Your task to perform on an android device: open app "DoorDash - Food Delivery" (install if not already installed), go to login, and select forgot password Image 0: 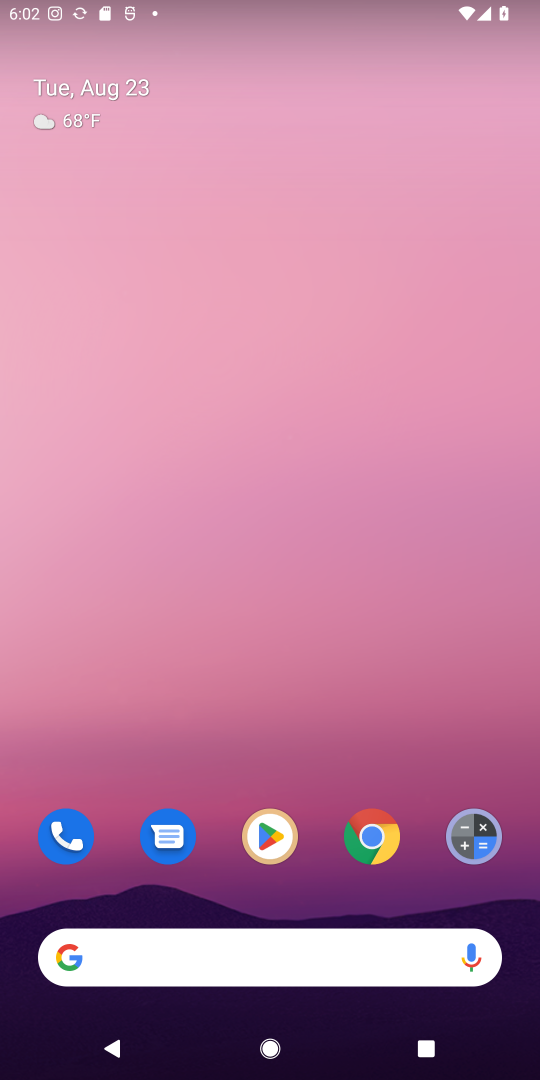
Step 0: click (273, 834)
Your task to perform on an android device: open app "DoorDash - Food Delivery" (install if not already installed), go to login, and select forgot password Image 1: 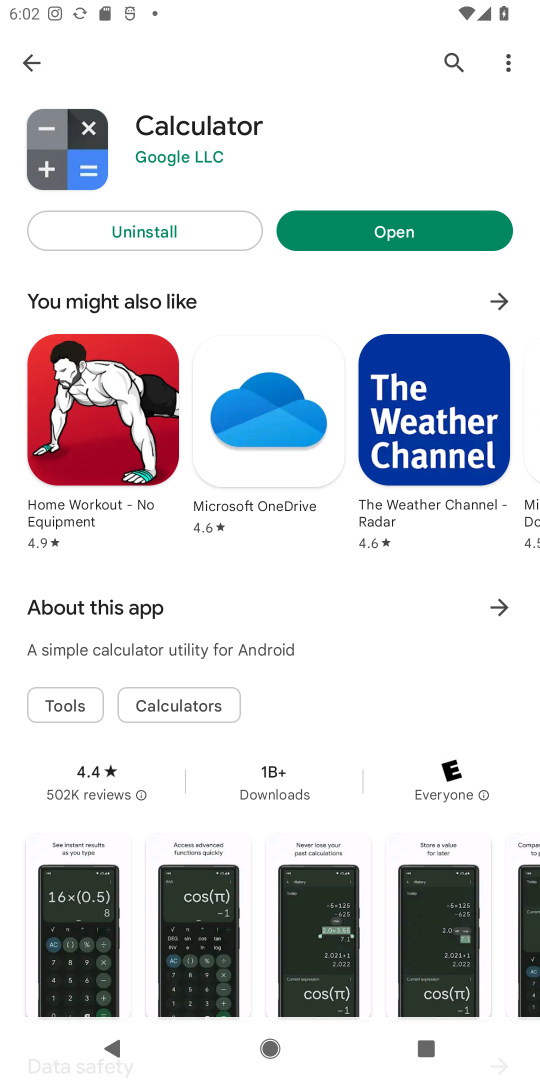
Step 1: click (450, 60)
Your task to perform on an android device: open app "DoorDash - Food Delivery" (install if not already installed), go to login, and select forgot password Image 2: 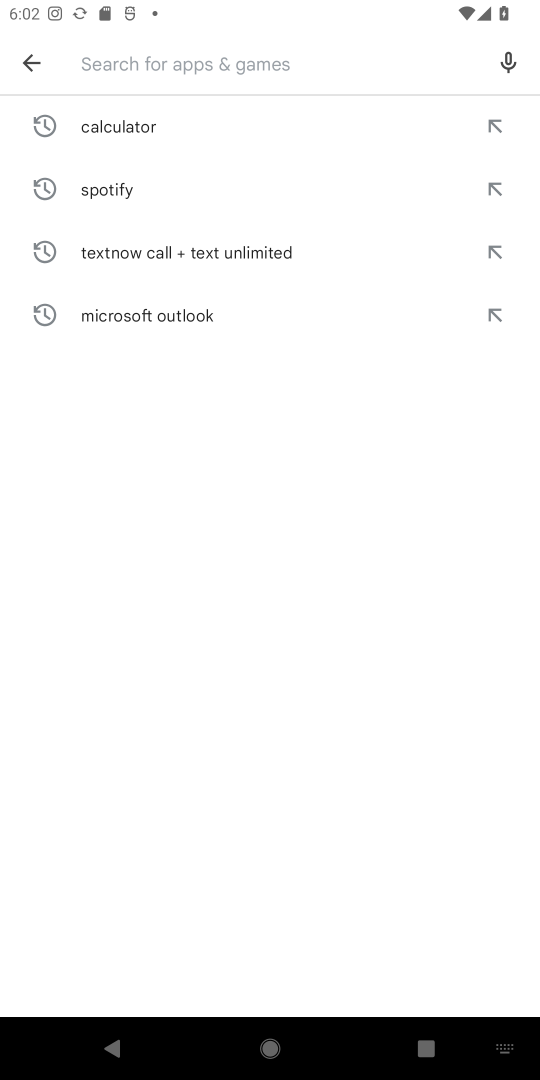
Step 2: type "DoorDash - Food Delivery"
Your task to perform on an android device: open app "DoorDash - Food Delivery" (install if not already installed), go to login, and select forgot password Image 3: 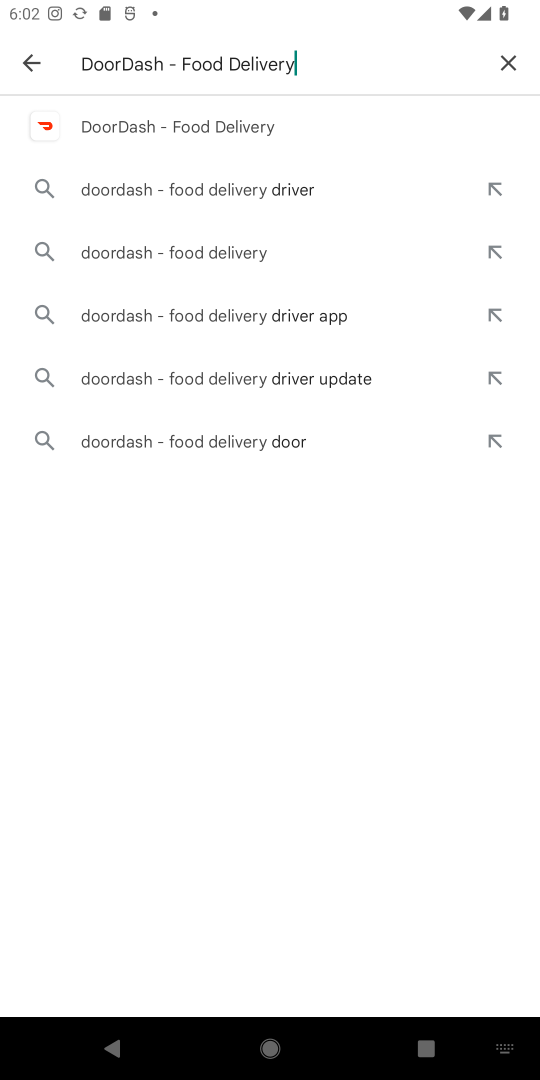
Step 3: click (131, 118)
Your task to perform on an android device: open app "DoorDash - Food Delivery" (install if not already installed), go to login, and select forgot password Image 4: 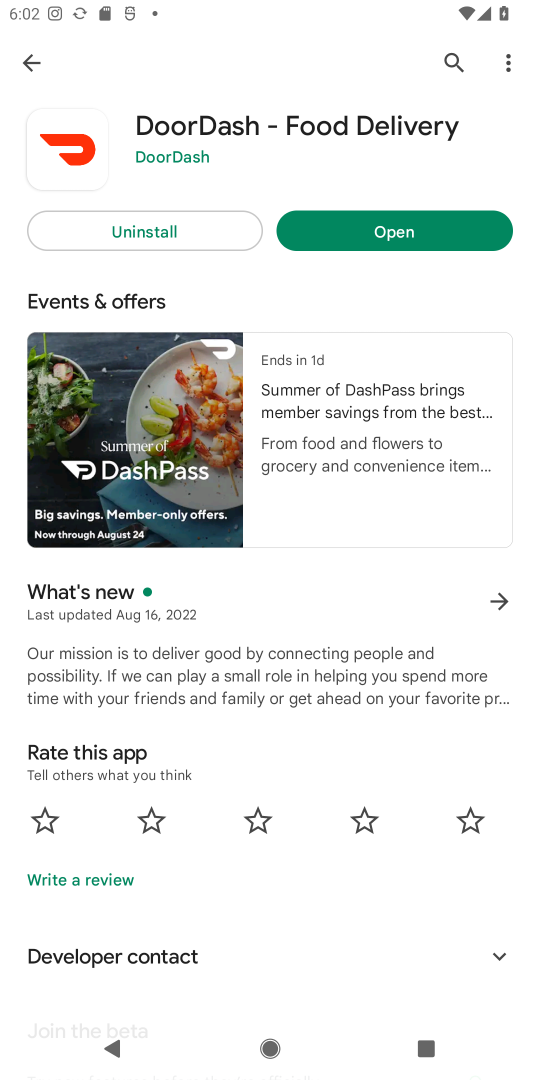
Step 4: click (388, 231)
Your task to perform on an android device: open app "DoorDash - Food Delivery" (install if not already installed), go to login, and select forgot password Image 5: 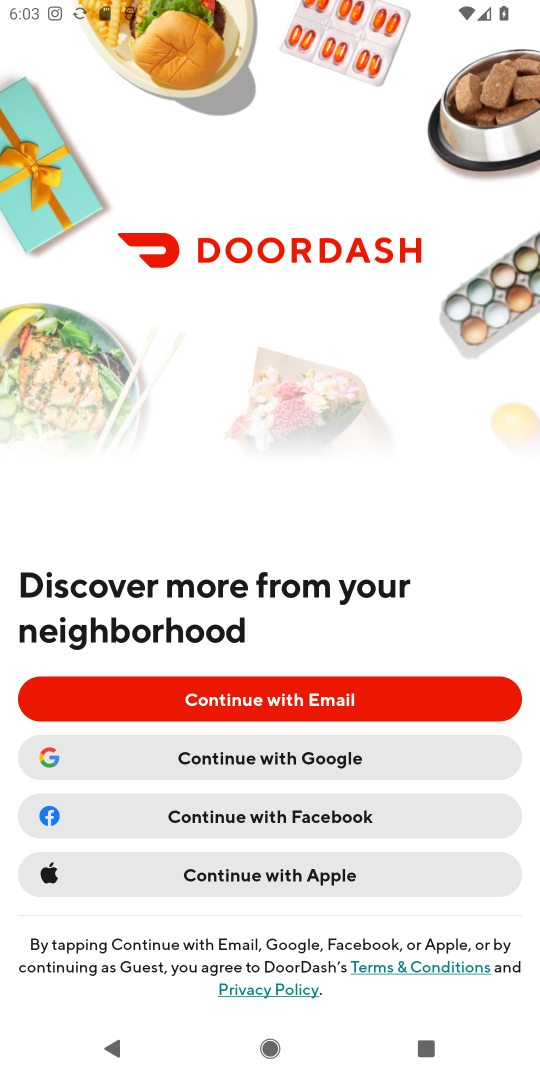
Step 5: click (268, 700)
Your task to perform on an android device: open app "DoorDash - Food Delivery" (install if not already installed), go to login, and select forgot password Image 6: 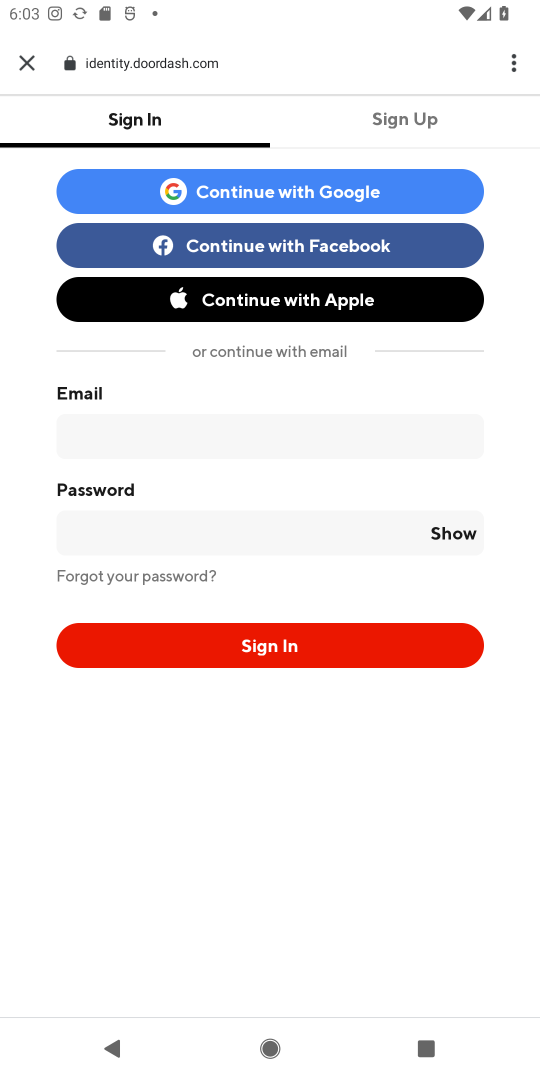
Step 6: click (145, 575)
Your task to perform on an android device: open app "DoorDash - Food Delivery" (install if not already installed), go to login, and select forgot password Image 7: 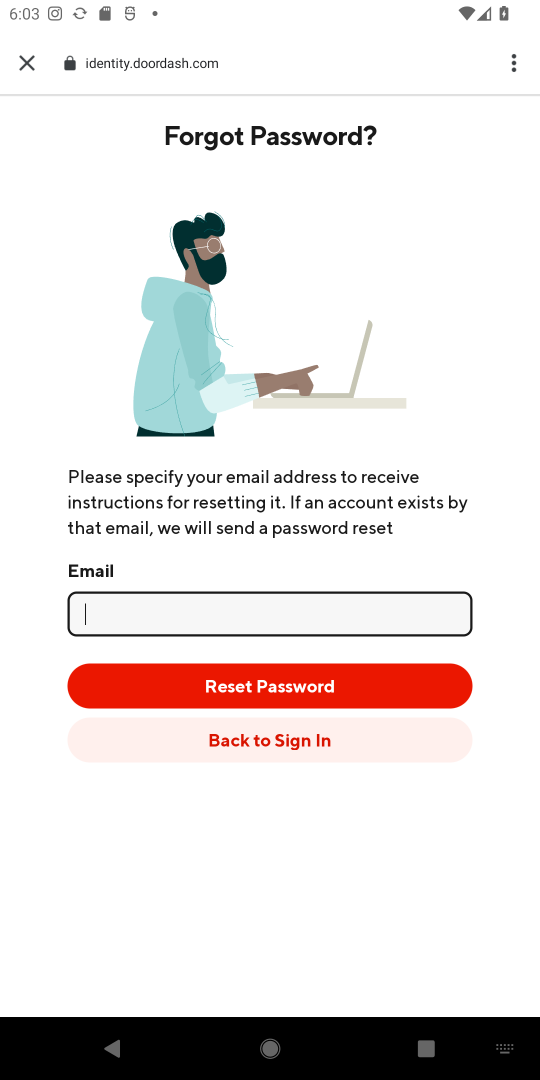
Step 7: task complete